Your task to perform on an android device: set the timer Image 0: 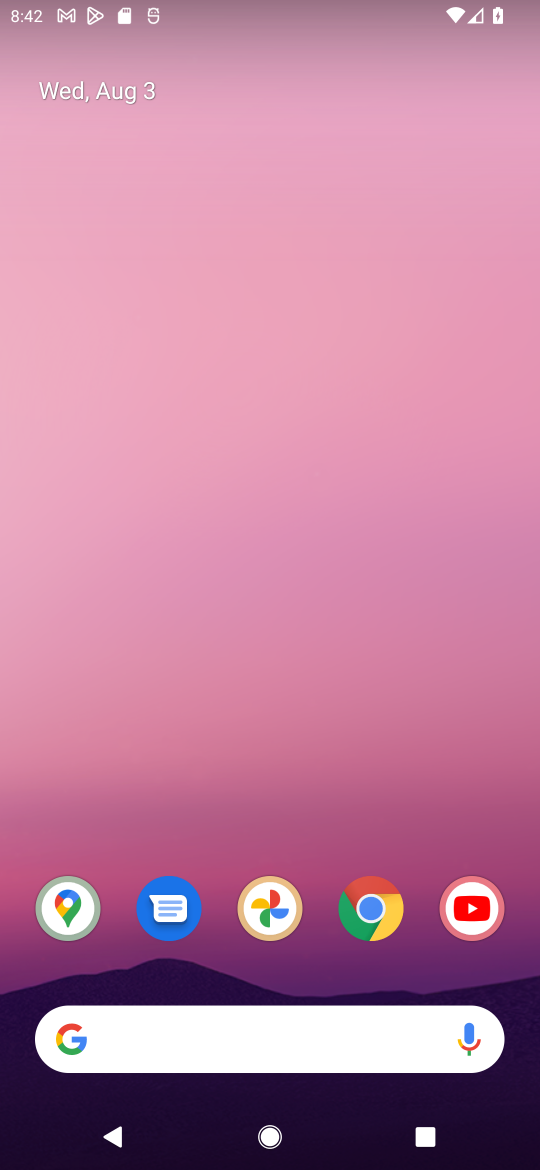
Step 0: drag from (239, 1032) to (374, 11)
Your task to perform on an android device: set the timer Image 1: 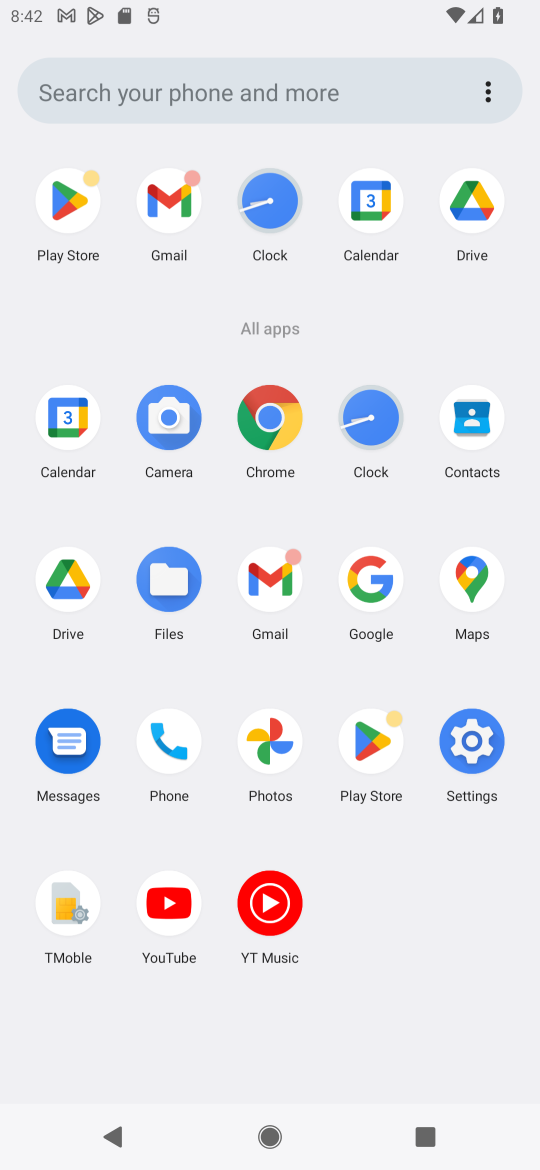
Step 1: click (385, 403)
Your task to perform on an android device: set the timer Image 2: 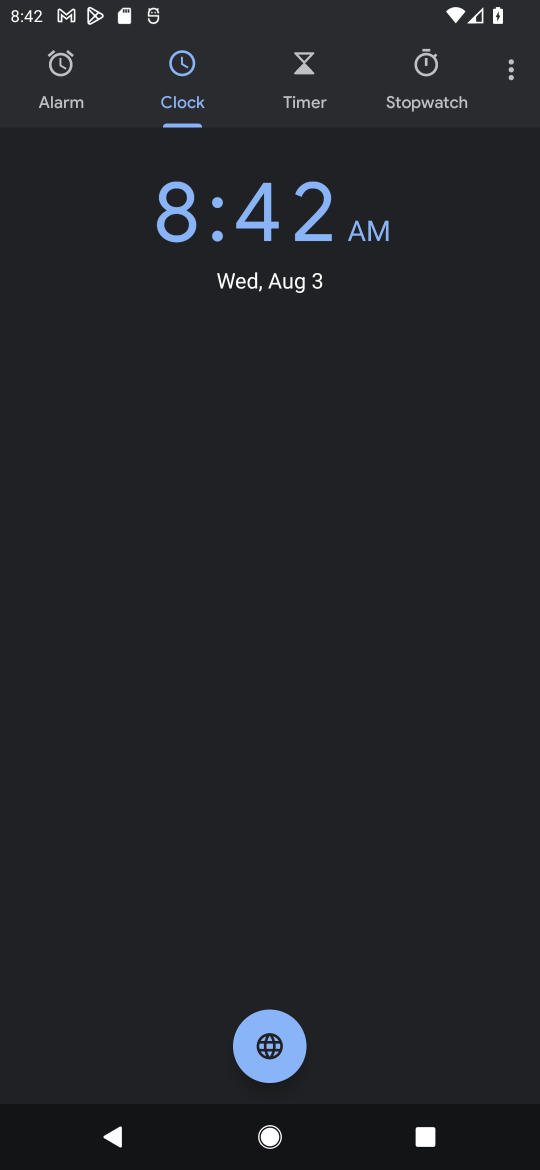
Step 2: click (309, 99)
Your task to perform on an android device: set the timer Image 3: 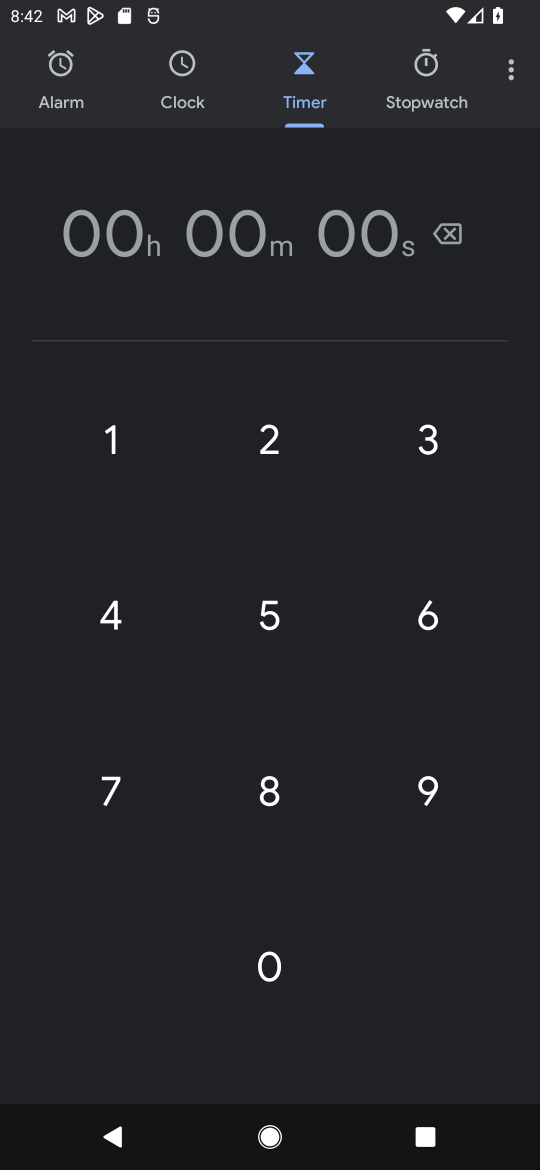
Step 3: click (252, 593)
Your task to perform on an android device: set the timer Image 4: 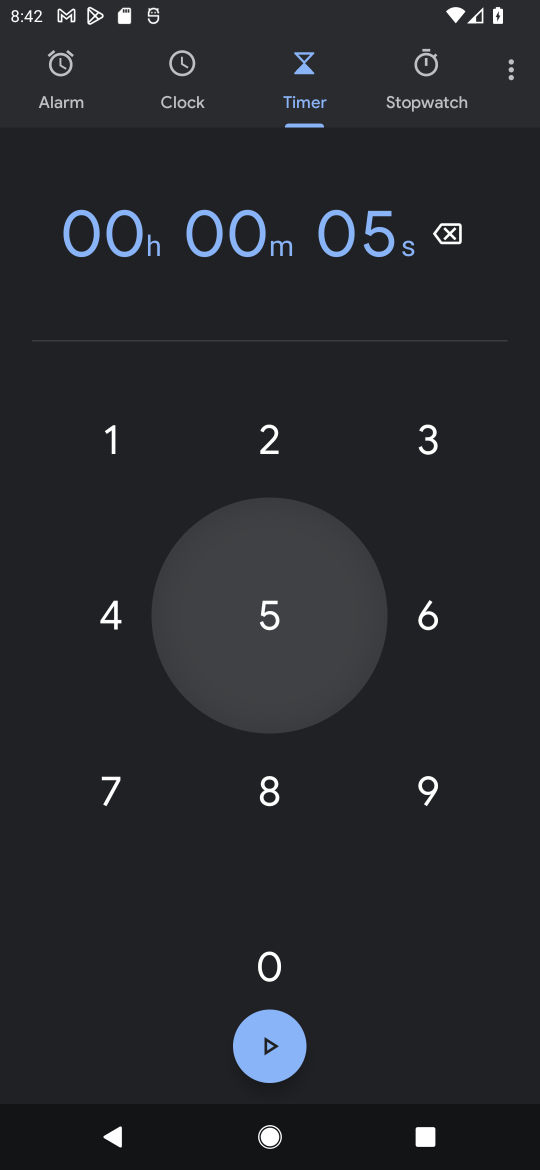
Step 4: click (434, 627)
Your task to perform on an android device: set the timer Image 5: 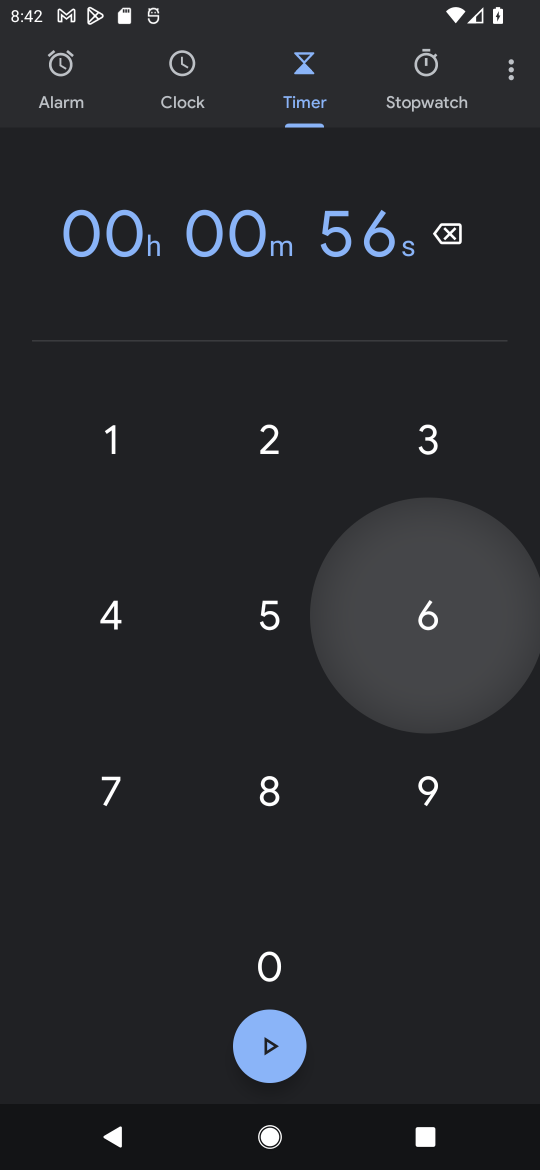
Step 5: click (279, 783)
Your task to perform on an android device: set the timer Image 6: 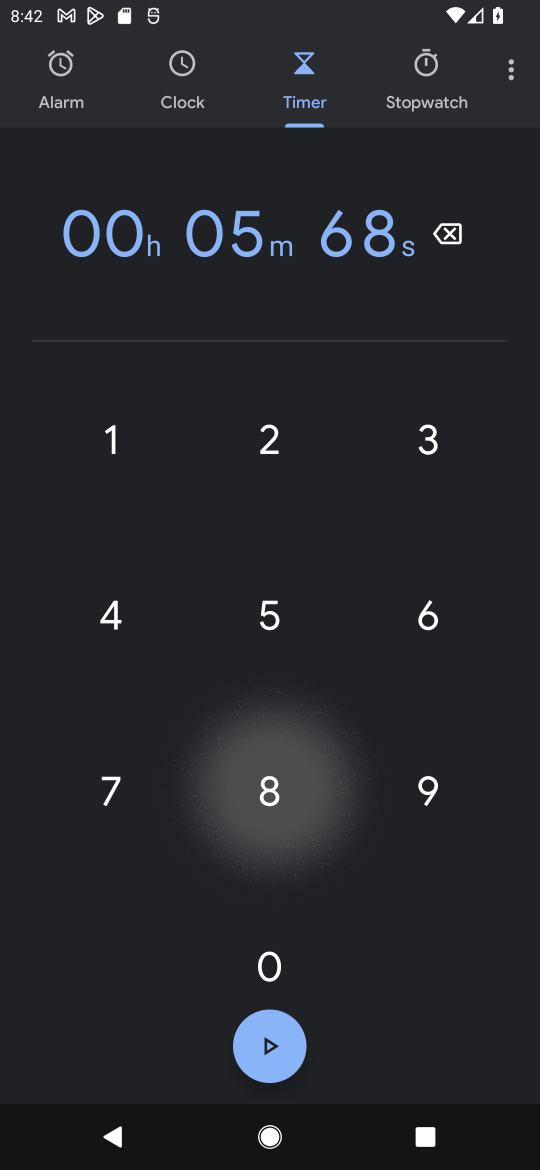
Step 6: click (440, 786)
Your task to perform on an android device: set the timer Image 7: 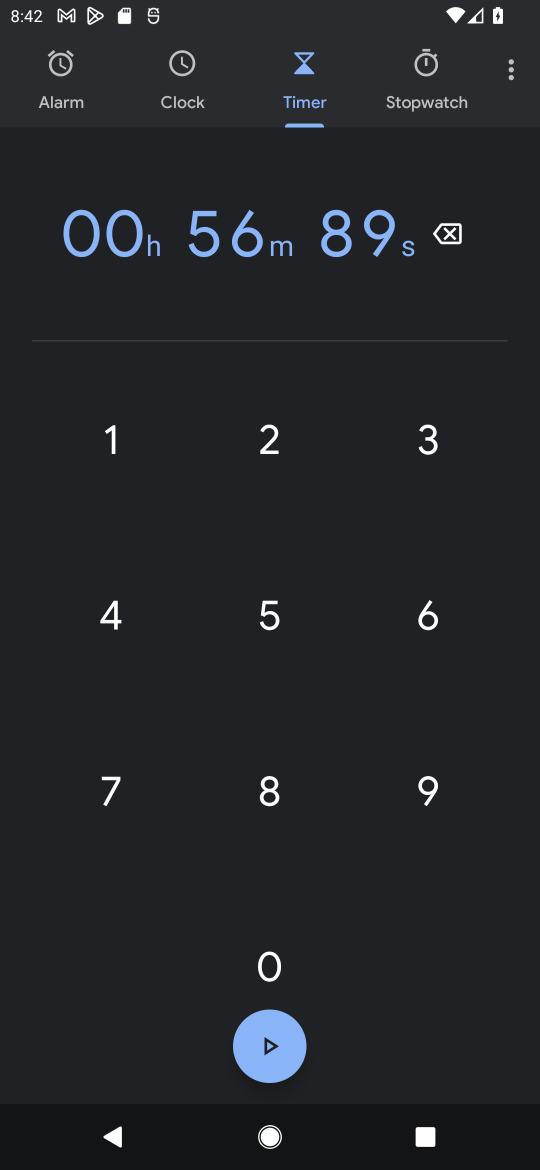
Step 7: click (253, 1051)
Your task to perform on an android device: set the timer Image 8: 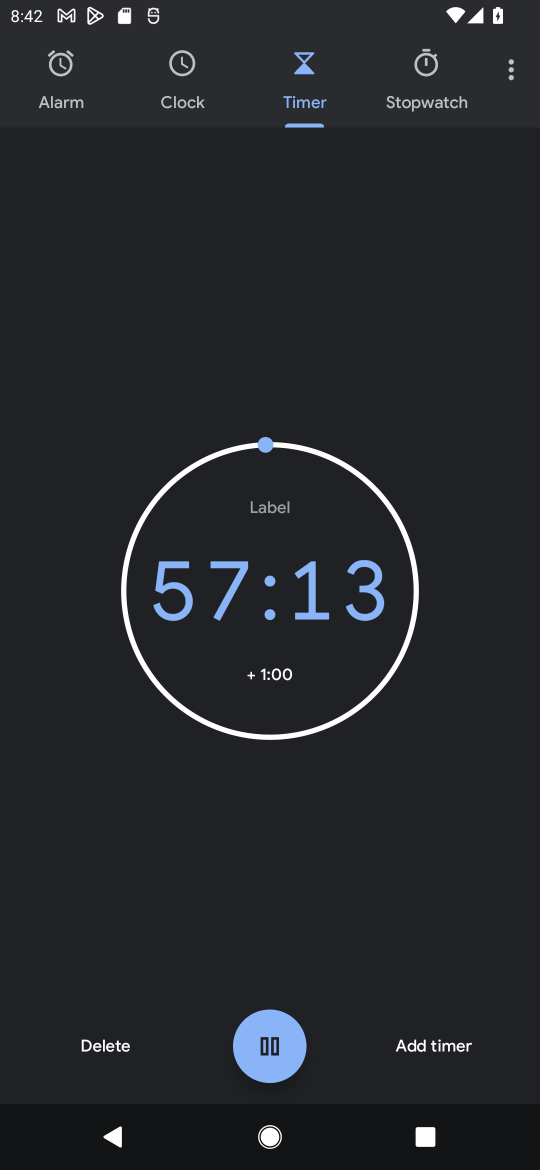
Step 8: task complete